Your task to perform on an android device: delete the emails in spam in the gmail app Image 0: 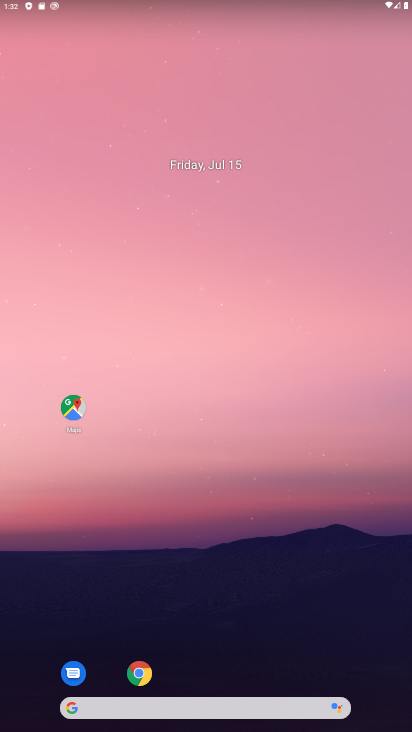
Step 0: drag from (287, 534) to (325, 205)
Your task to perform on an android device: delete the emails in spam in the gmail app Image 1: 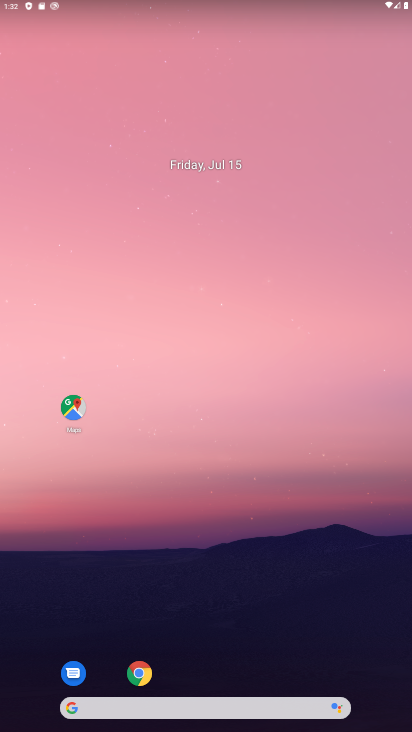
Step 1: drag from (299, 651) to (304, 29)
Your task to perform on an android device: delete the emails in spam in the gmail app Image 2: 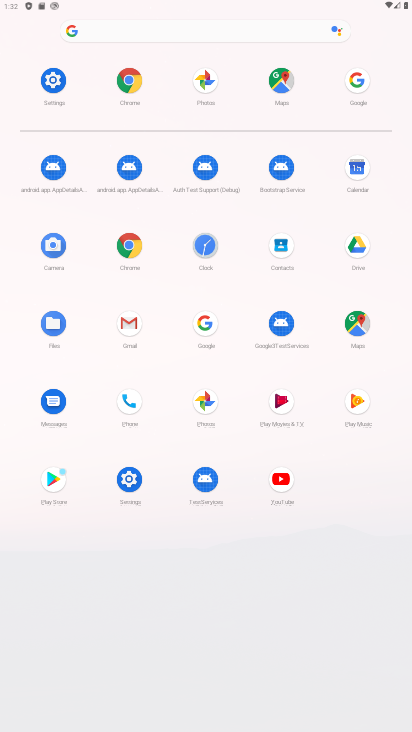
Step 2: click (118, 323)
Your task to perform on an android device: delete the emails in spam in the gmail app Image 3: 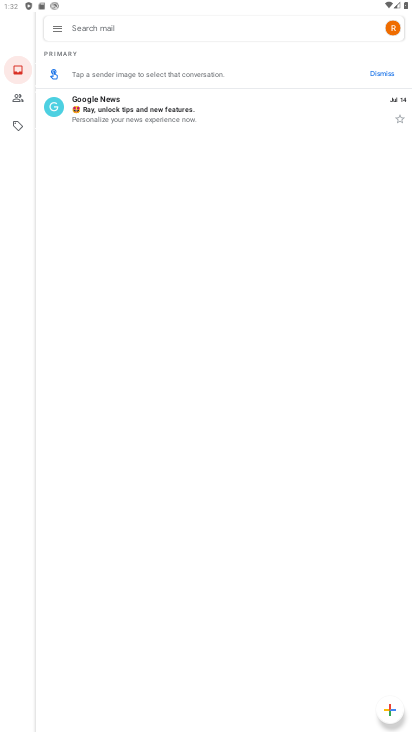
Step 3: click (50, 37)
Your task to perform on an android device: delete the emails in spam in the gmail app Image 4: 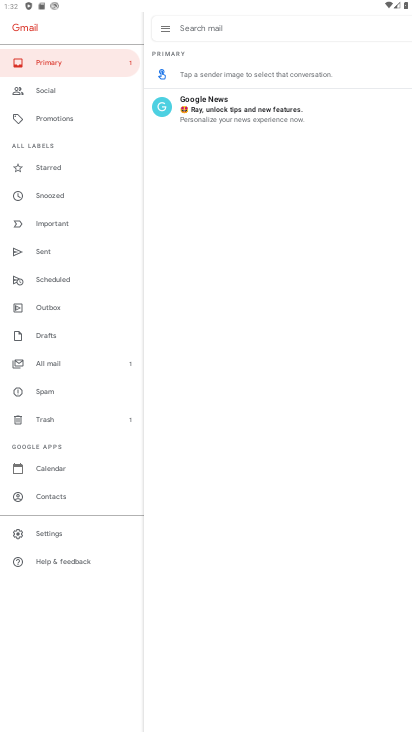
Step 4: click (61, 389)
Your task to perform on an android device: delete the emails in spam in the gmail app Image 5: 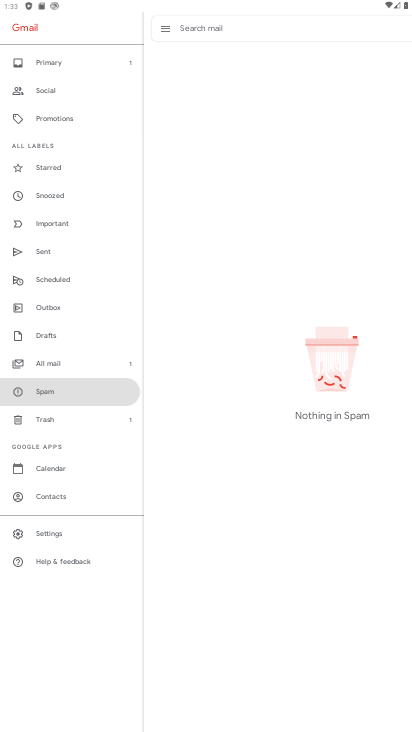
Step 5: task complete